Your task to perform on an android device: Open network settings Image 0: 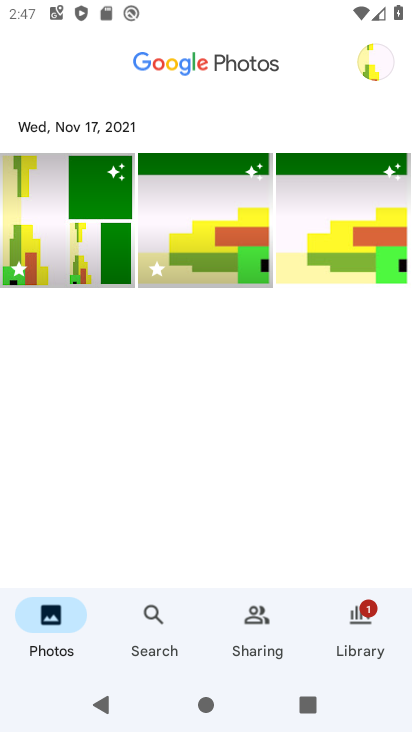
Step 0: press home button
Your task to perform on an android device: Open network settings Image 1: 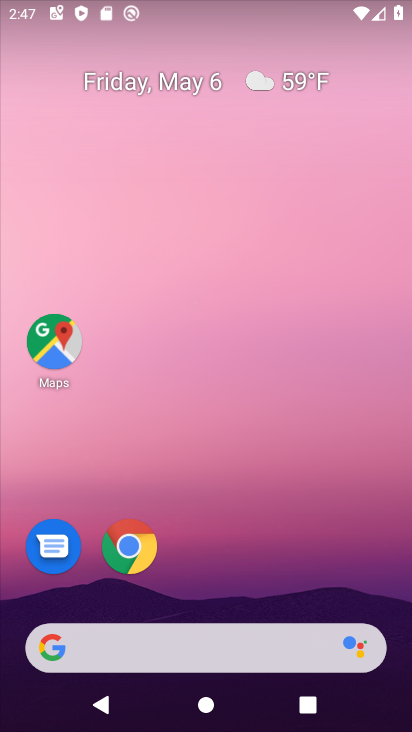
Step 1: drag from (285, 536) to (282, 79)
Your task to perform on an android device: Open network settings Image 2: 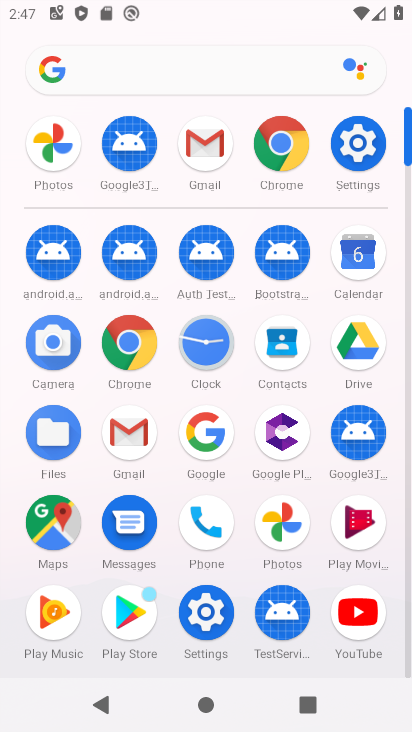
Step 2: click (362, 146)
Your task to perform on an android device: Open network settings Image 3: 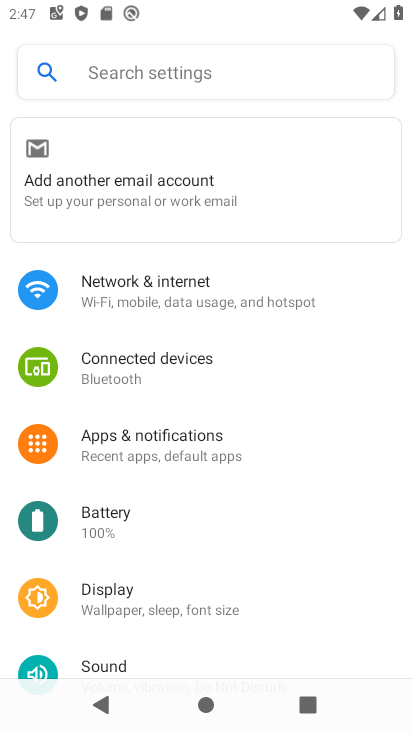
Step 3: click (178, 299)
Your task to perform on an android device: Open network settings Image 4: 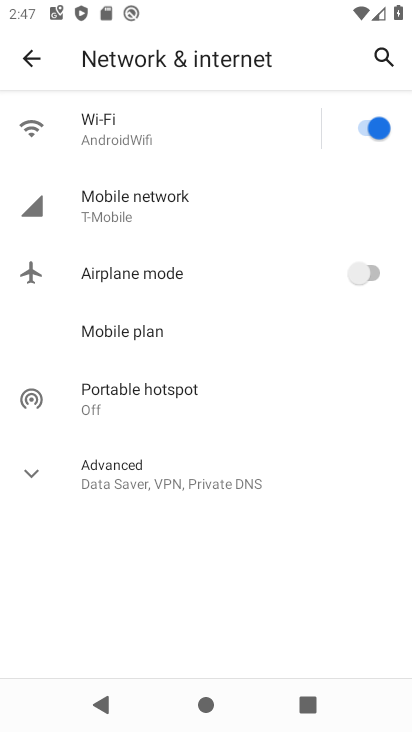
Step 4: task complete